Your task to perform on an android device: Open Wikipedia Image 0: 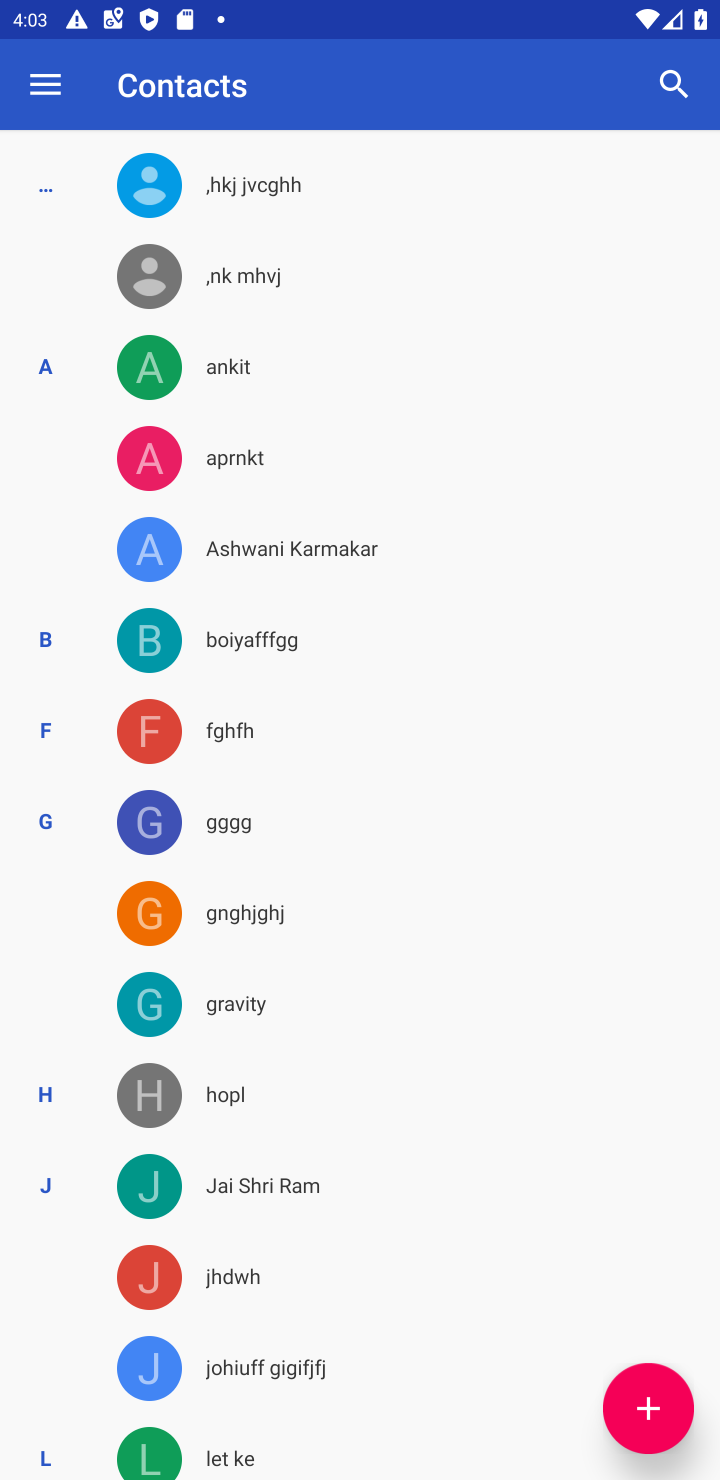
Step 0: press home button
Your task to perform on an android device: Open Wikipedia Image 1: 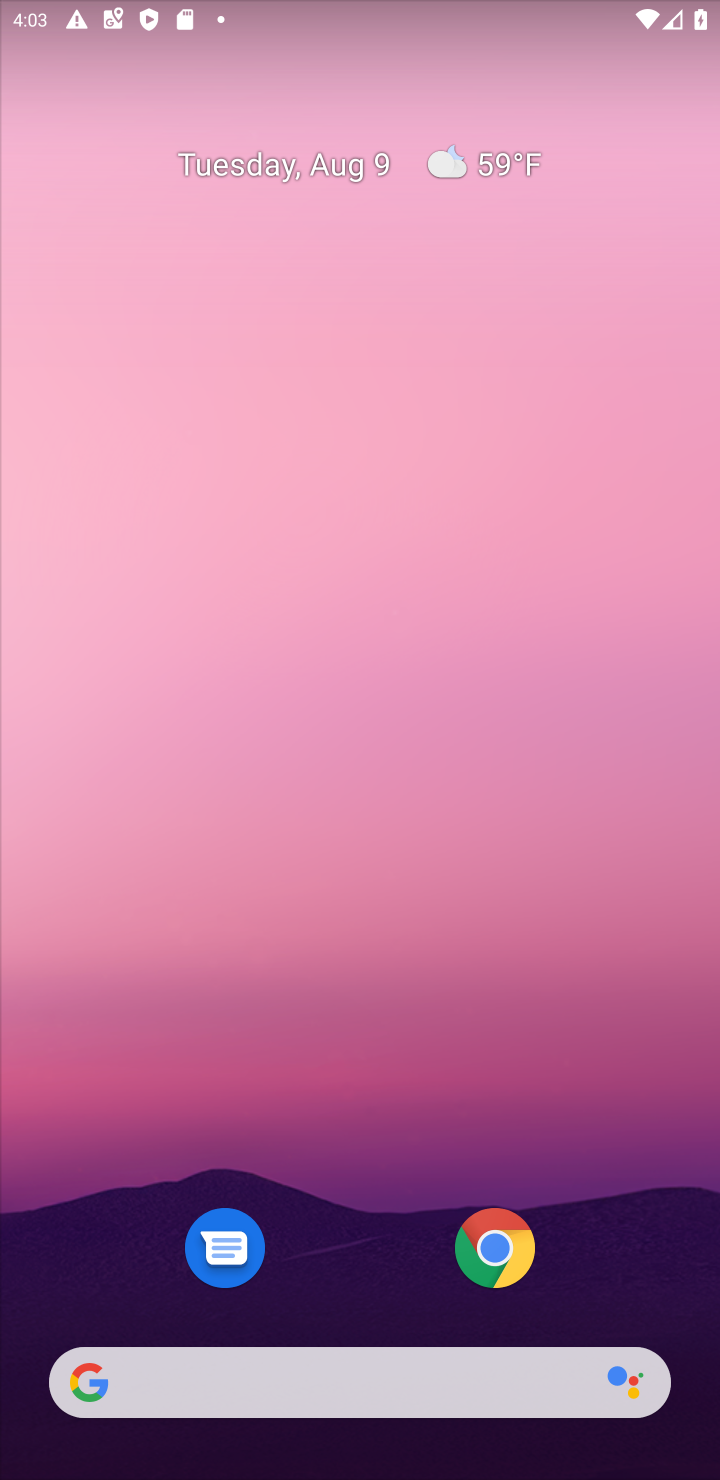
Step 1: drag from (358, 1153) to (27, 135)
Your task to perform on an android device: Open Wikipedia Image 2: 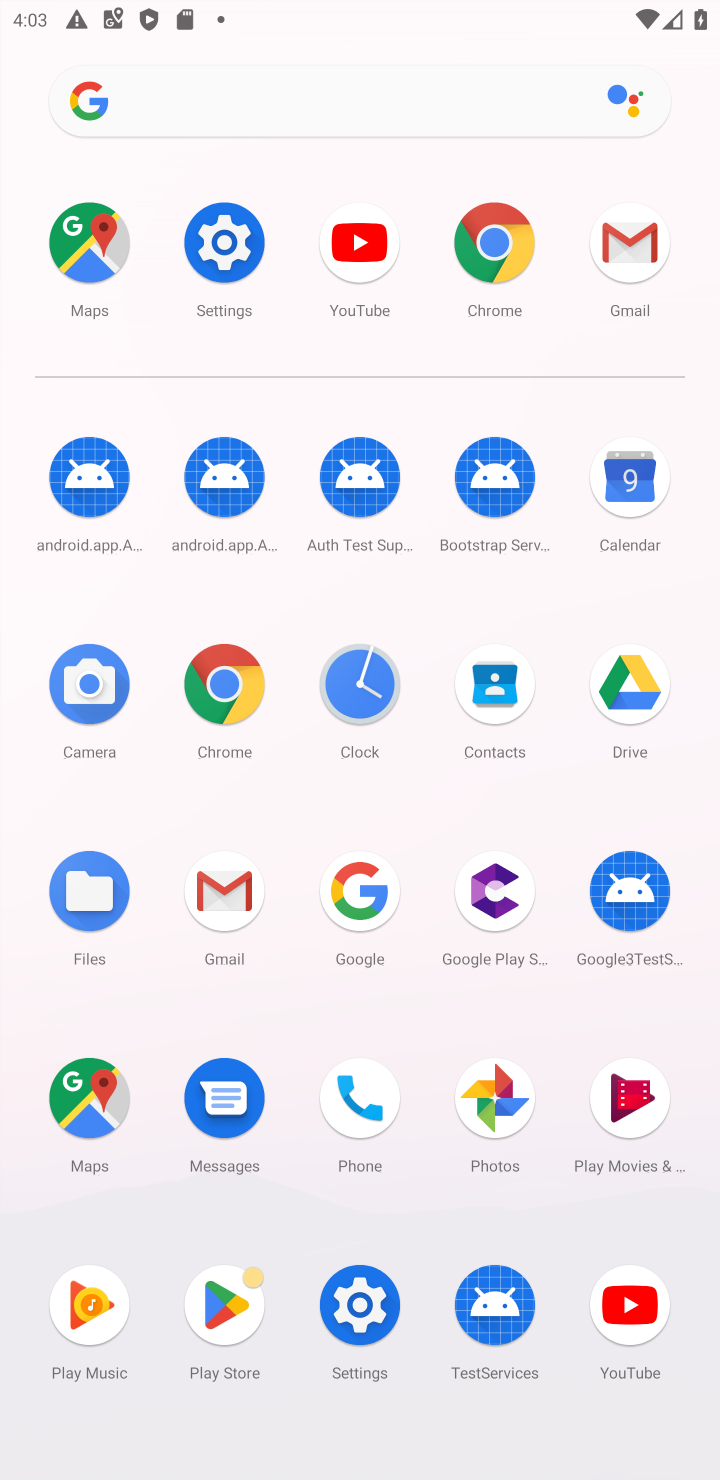
Step 2: click (232, 683)
Your task to perform on an android device: Open Wikipedia Image 3: 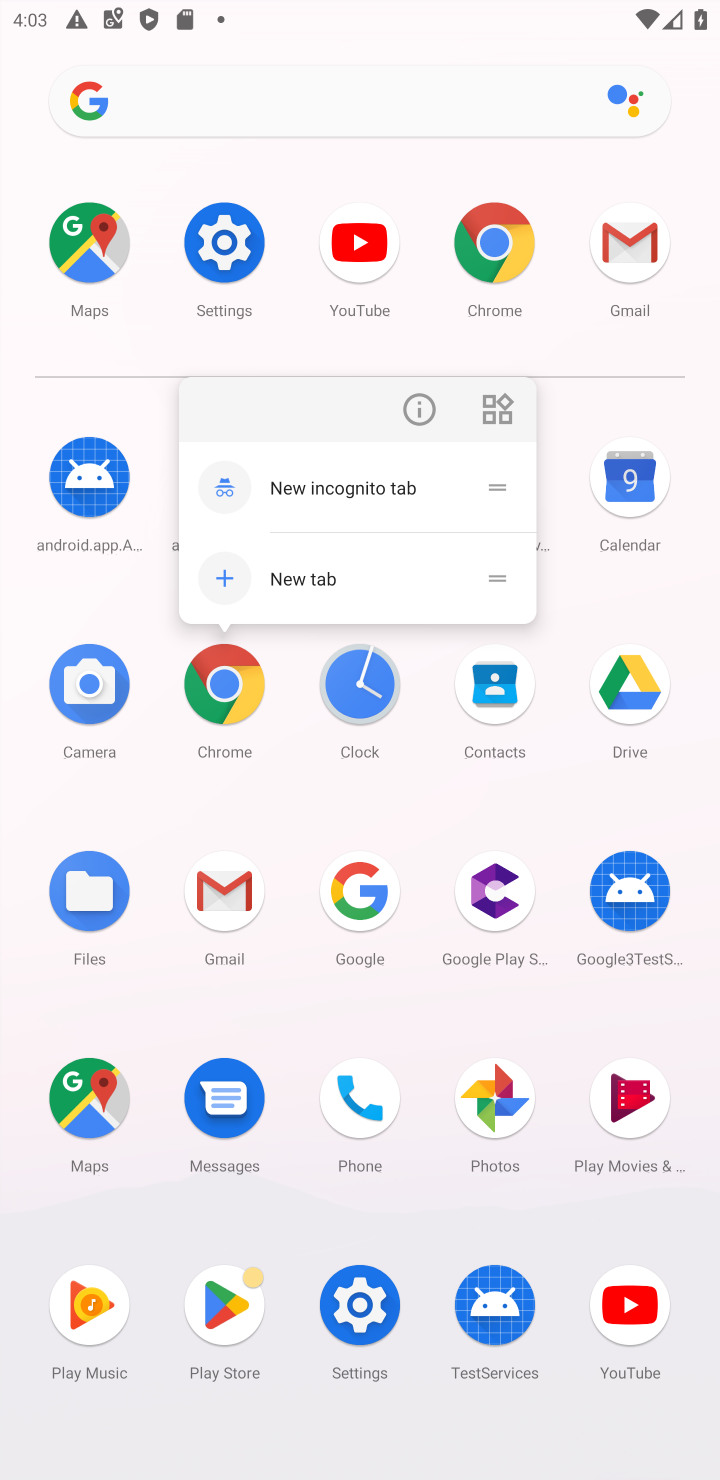
Step 3: click (225, 685)
Your task to perform on an android device: Open Wikipedia Image 4: 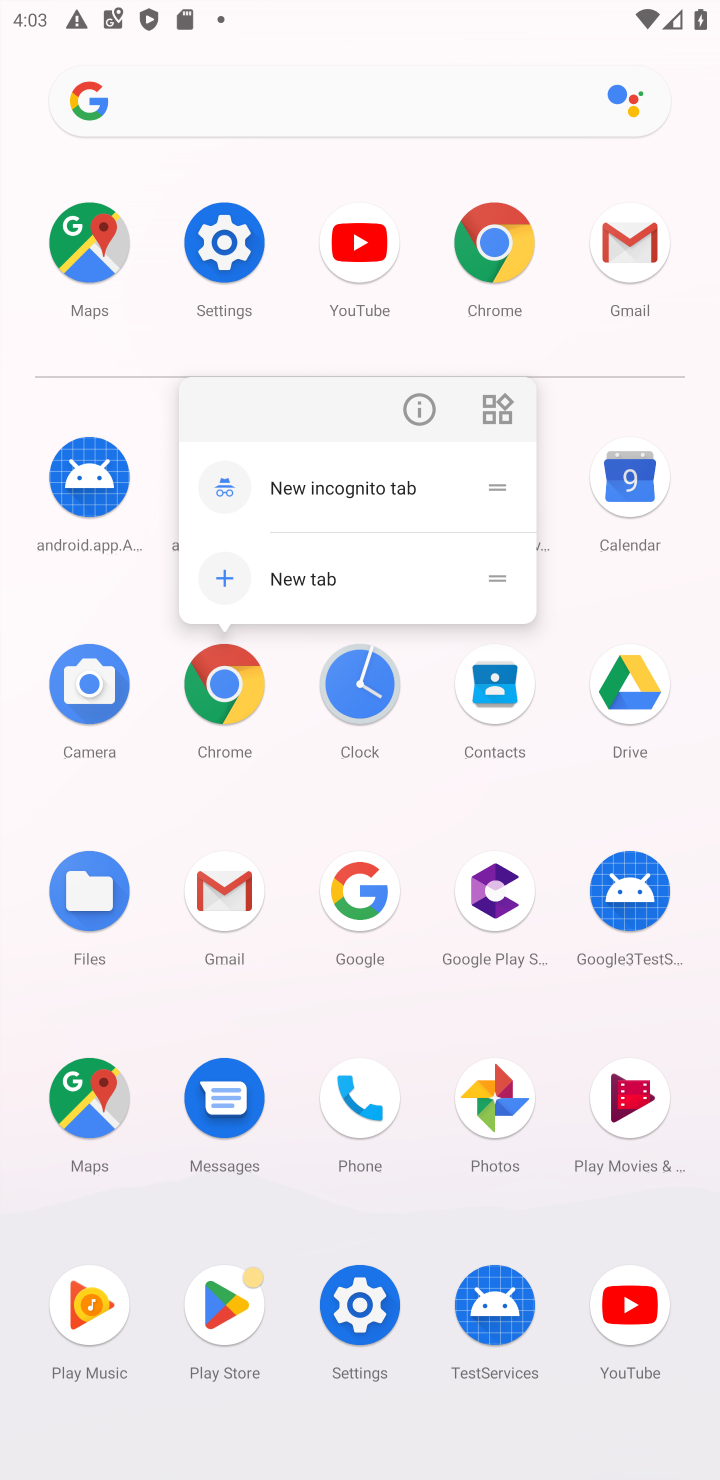
Step 4: click (428, 806)
Your task to perform on an android device: Open Wikipedia Image 5: 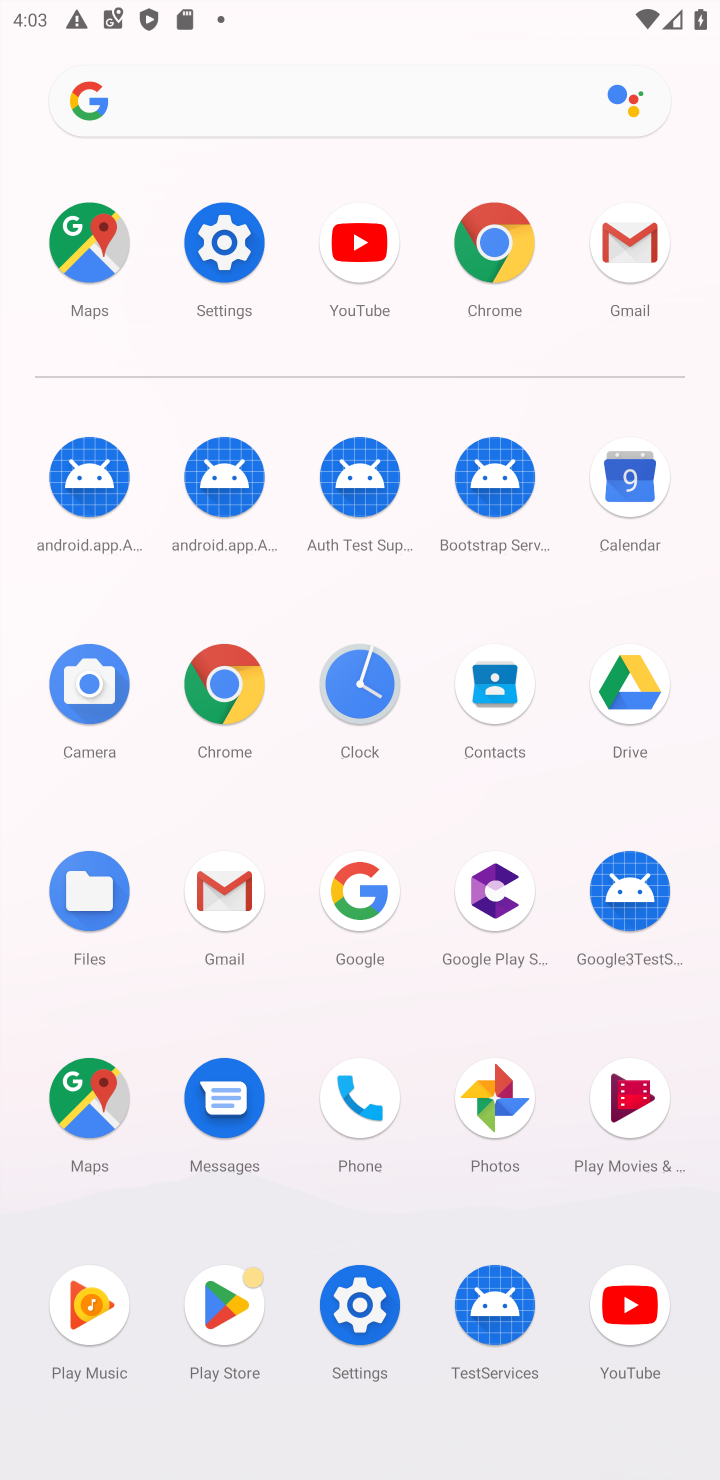
Step 5: click (231, 678)
Your task to perform on an android device: Open Wikipedia Image 6: 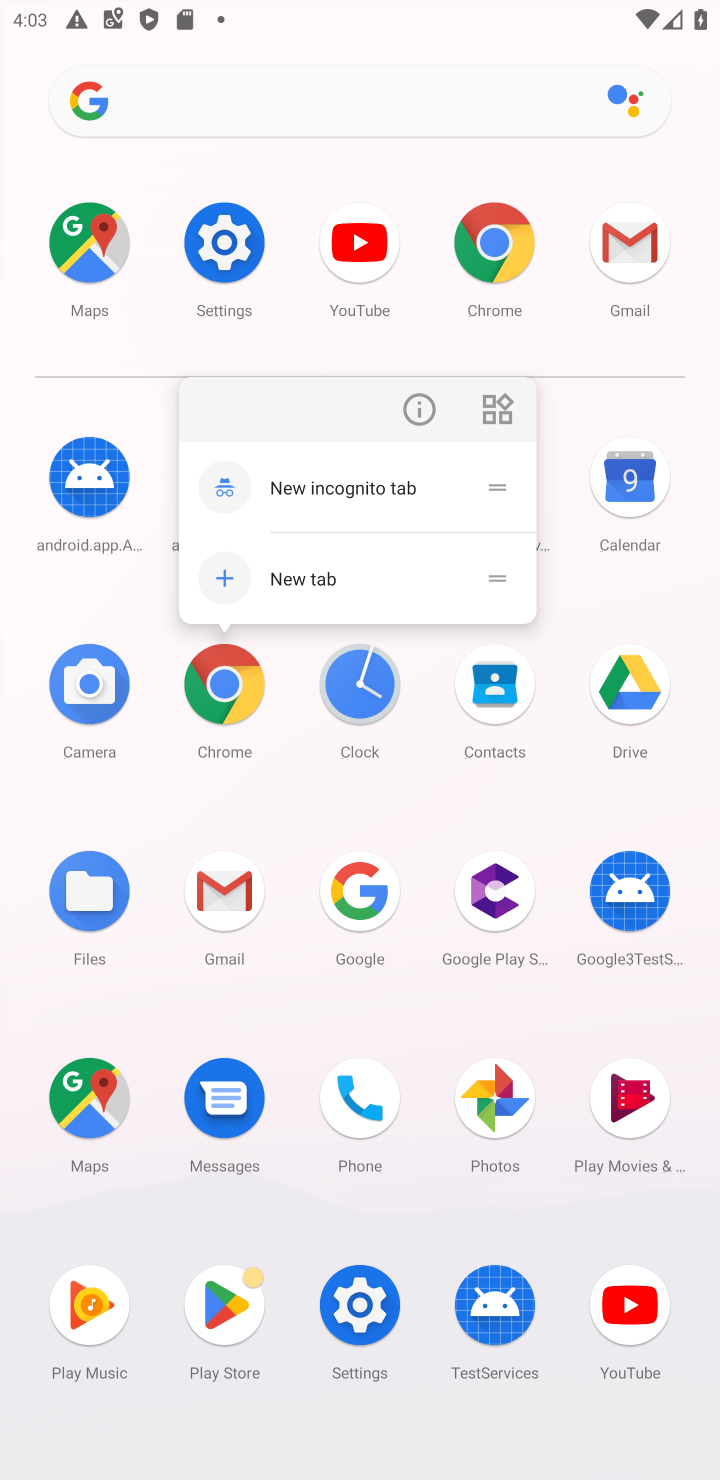
Step 6: click (231, 685)
Your task to perform on an android device: Open Wikipedia Image 7: 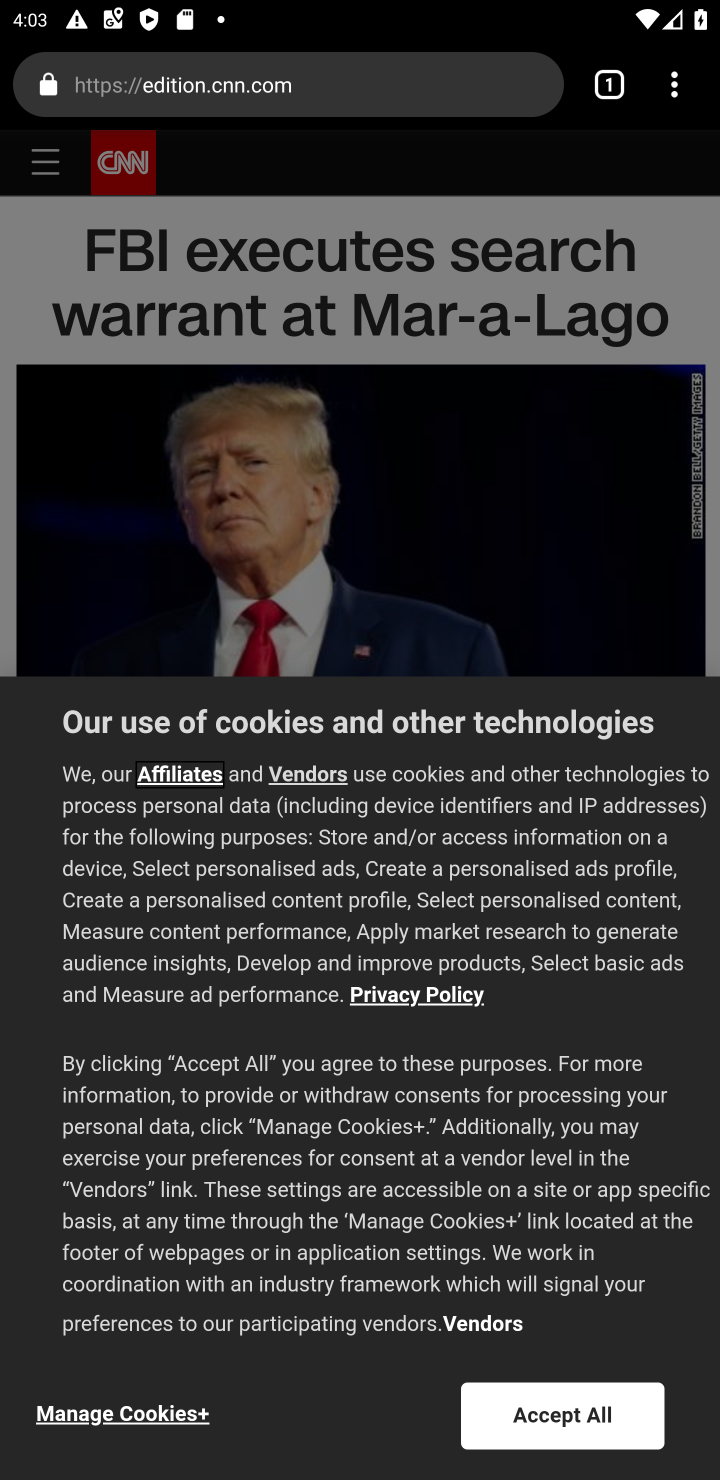
Step 7: click (234, 98)
Your task to perform on an android device: Open Wikipedia Image 8: 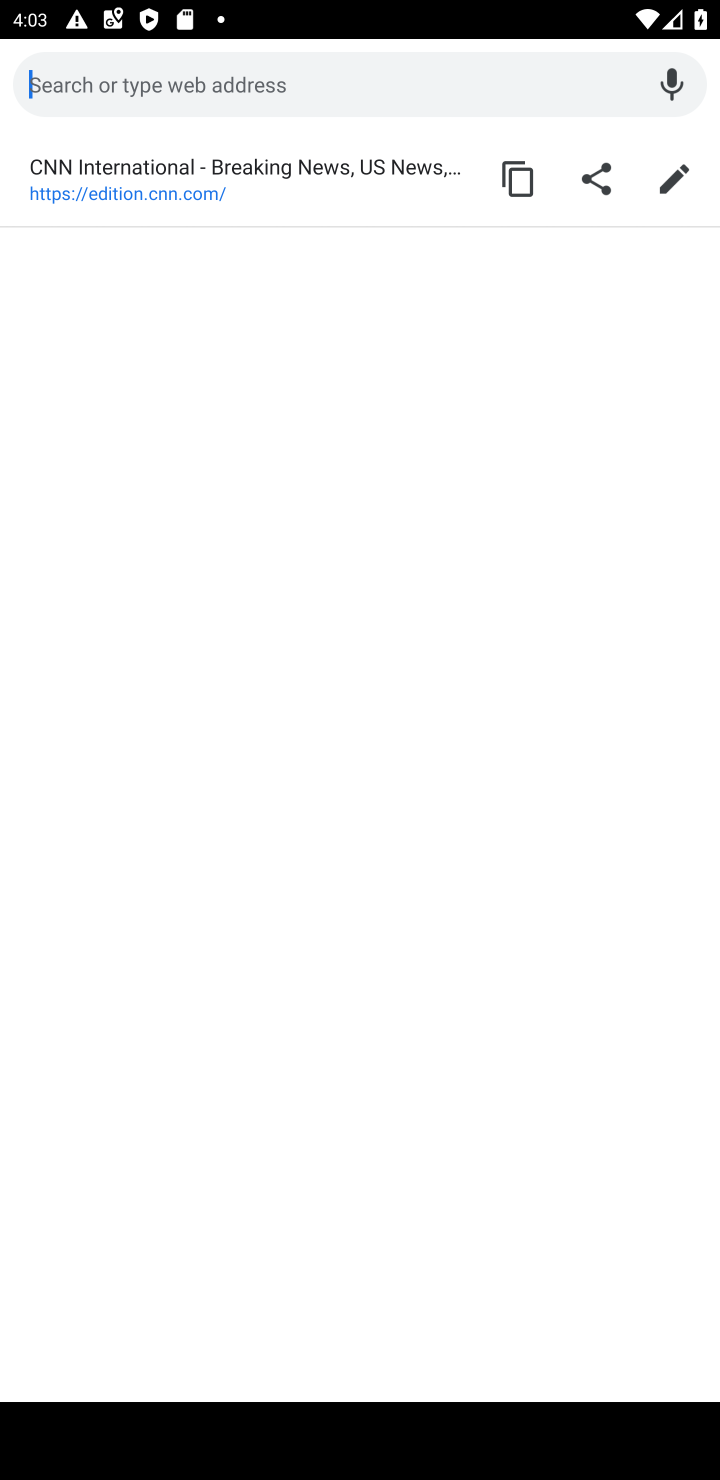
Step 8: type "wikipedia"
Your task to perform on an android device: Open Wikipedia Image 9: 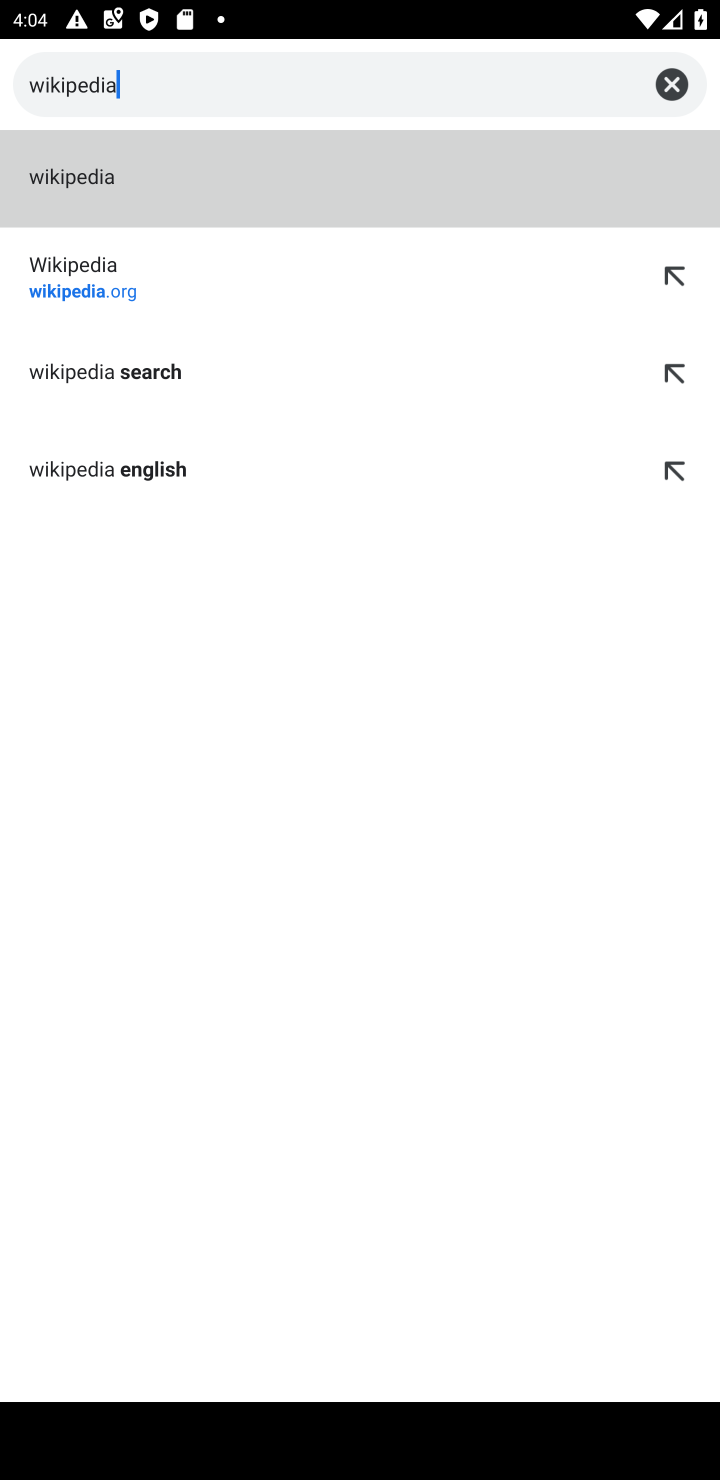
Step 9: click (86, 295)
Your task to perform on an android device: Open Wikipedia Image 10: 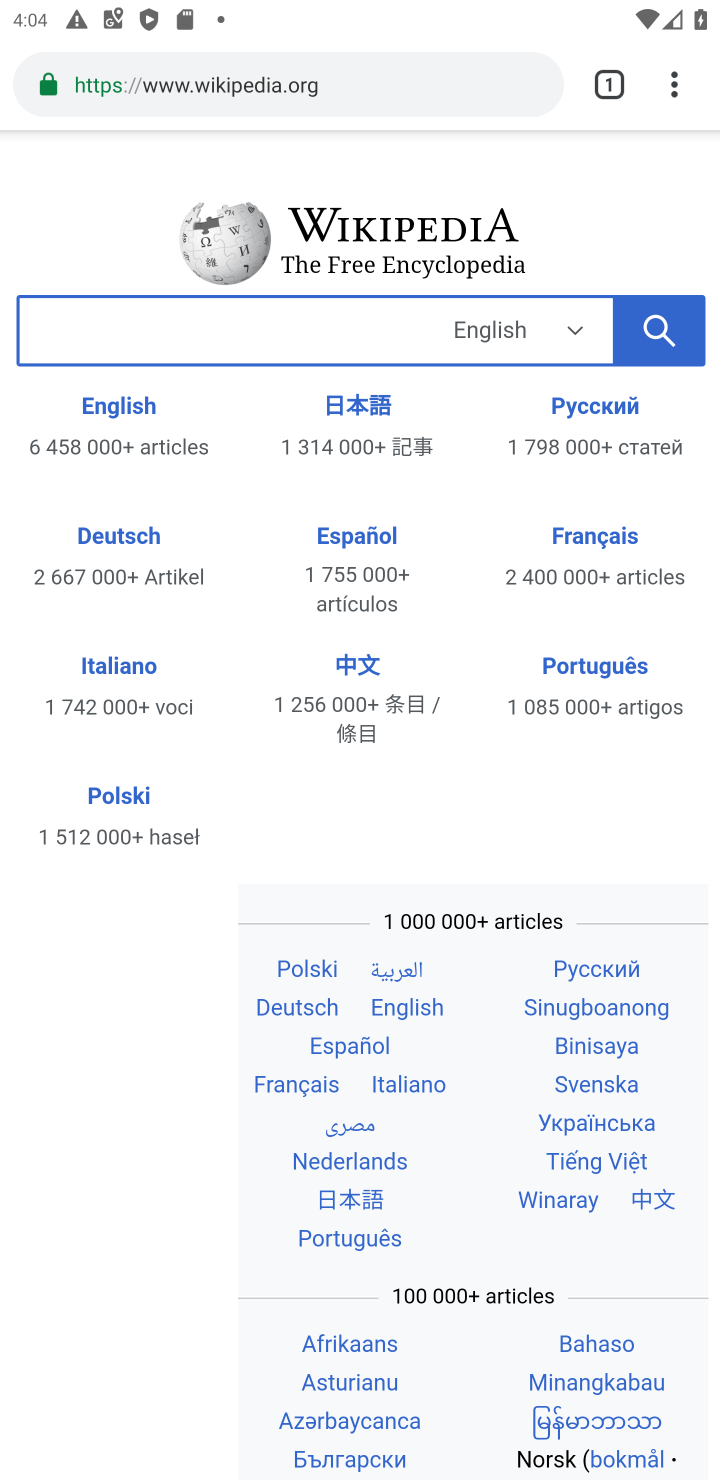
Step 10: task complete